Your task to perform on an android device: Search for pizza restaurants on Maps Image 0: 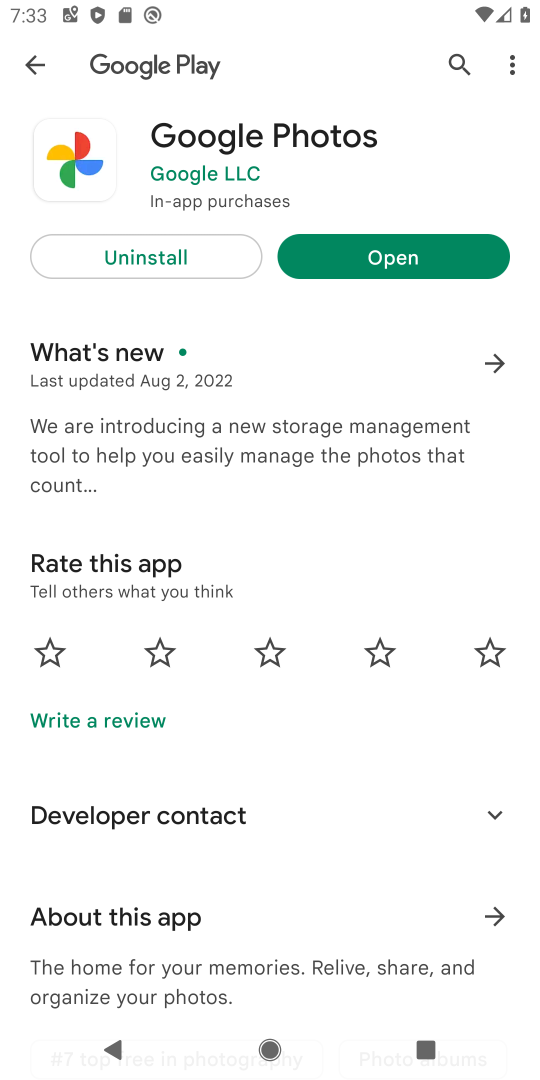
Step 0: press home button
Your task to perform on an android device: Search for pizza restaurants on Maps Image 1: 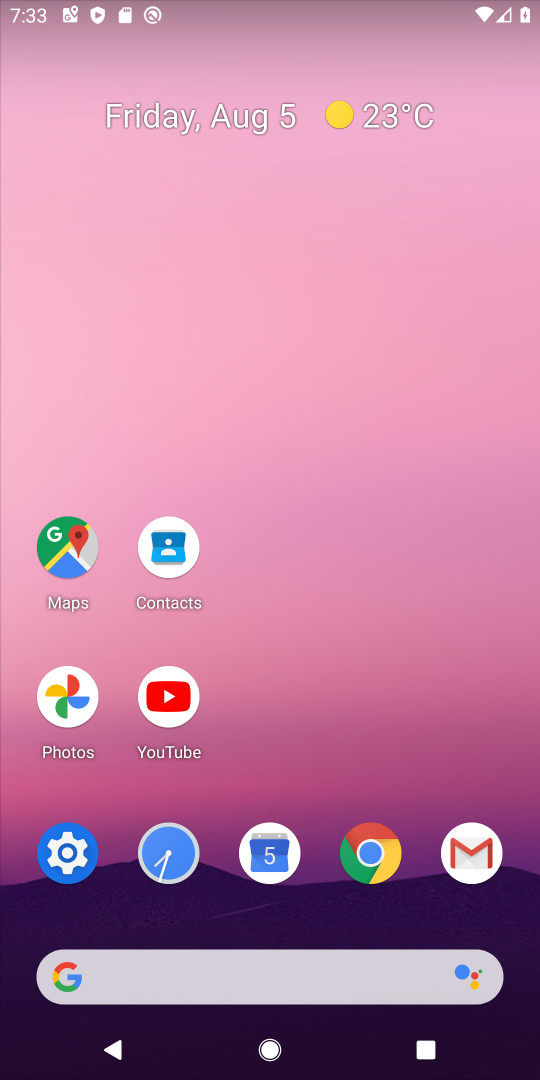
Step 1: click (59, 544)
Your task to perform on an android device: Search for pizza restaurants on Maps Image 2: 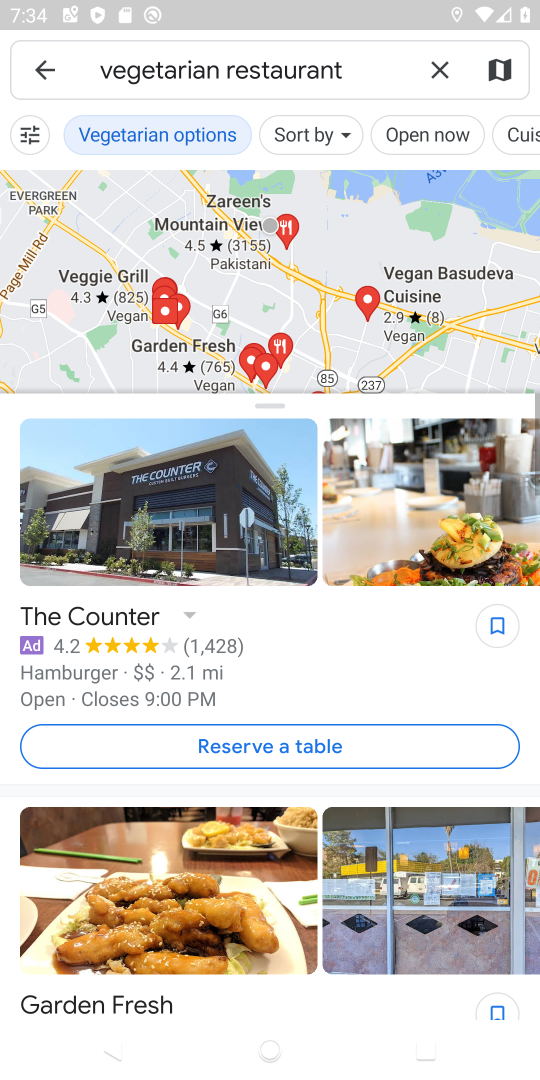
Step 2: click (445, 77)
Your task to perform on an android device: Search for pizza restaurants on Maps Image 3: 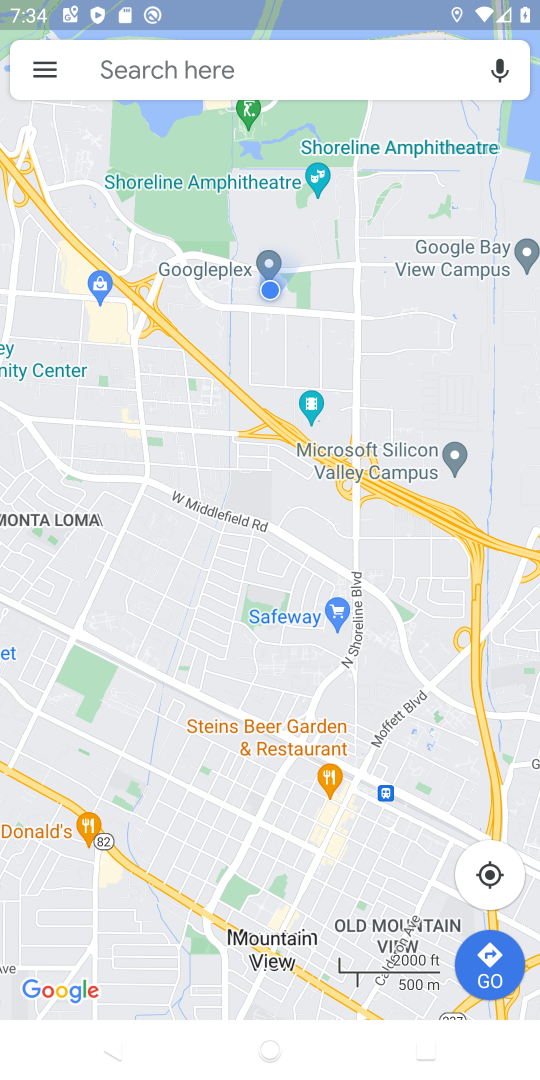
Step 3: click (241, 59)
Your task to perform on an android device: Search for pizza restaurants on Maps Image 4: 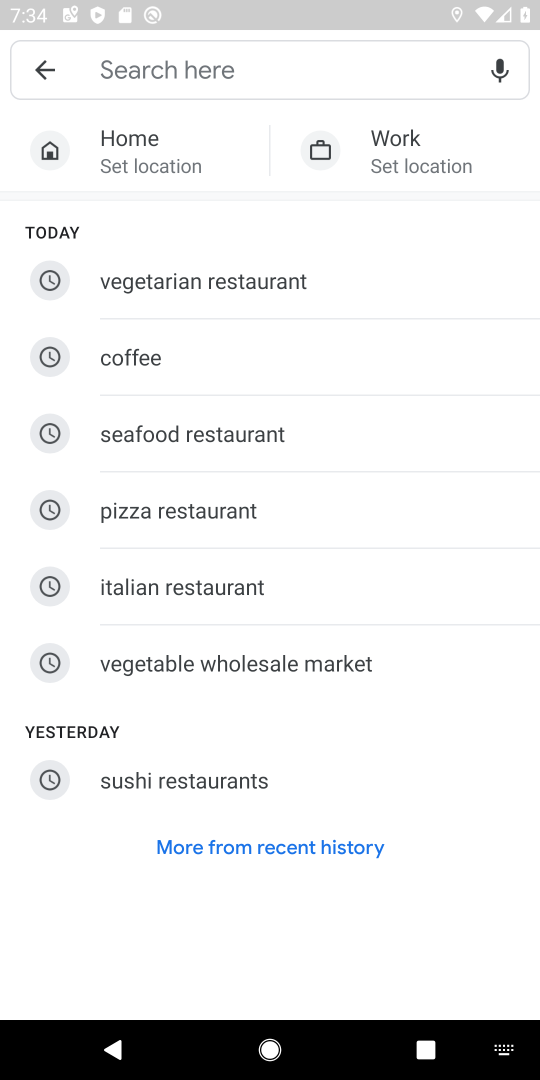
Step 4: click (173, 511)
Your task to perform on an android device: Search for pizza restaurants on Maps Image 5: 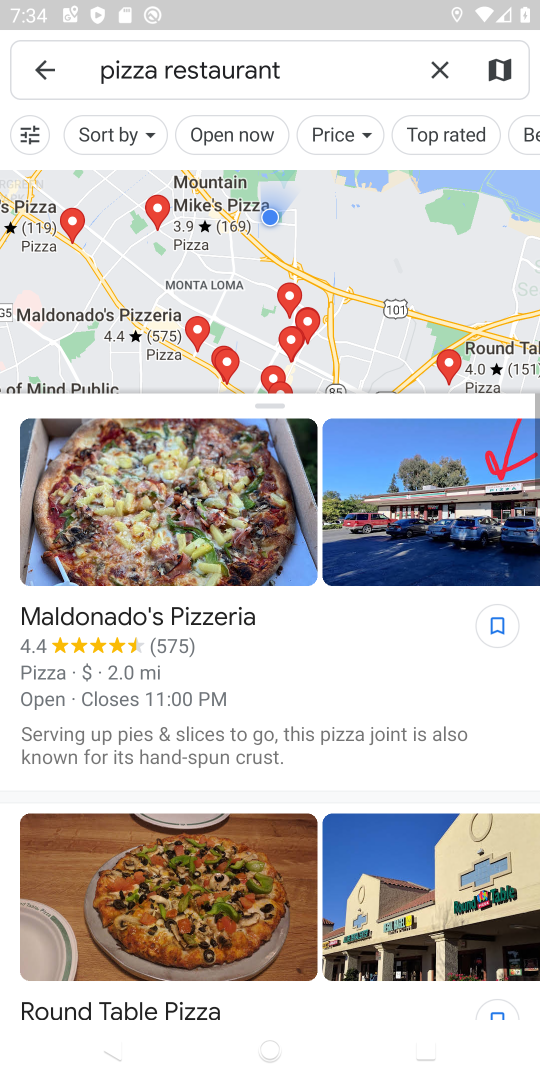
Step 5: task complete